Your task to perform on an android device: change timer sound Image 0: 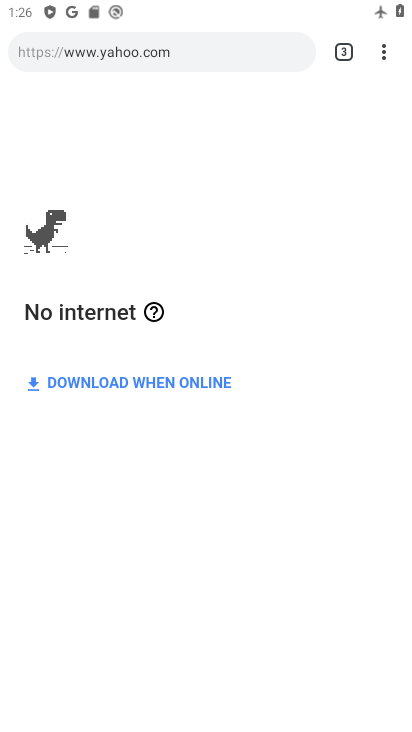
Step 0: press home button
Your task to perform on an android device: change timer sound Image 1: 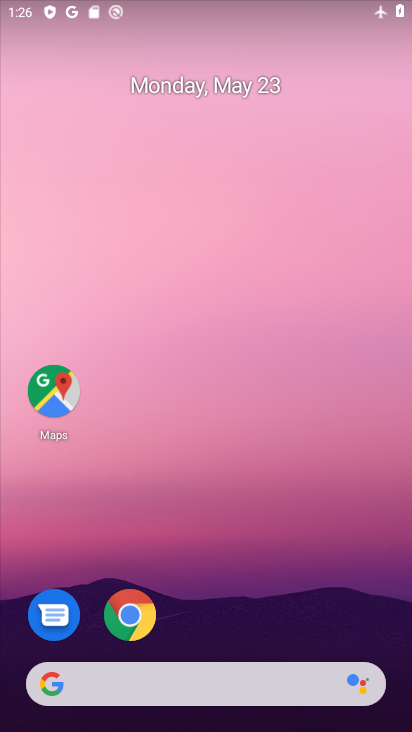
Step 1: drag from (221, 666) to (196, 126)
Your task to perform on an android device: change timer sound Image 2: 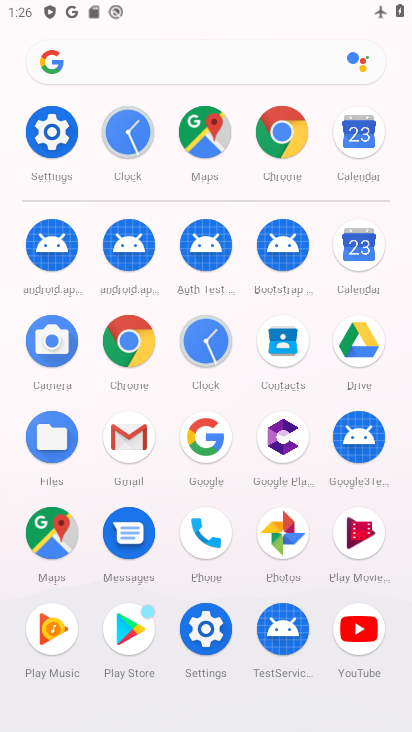
Step 2: click (214, 351)
Your task to perform on an android device: change timer sound Image 3: 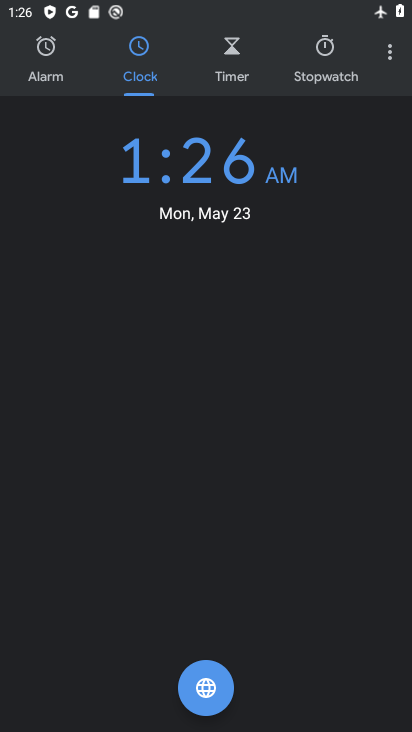
Step 3: click (391, 40)
Your task to perform on an android device: change timer sound Image 4: 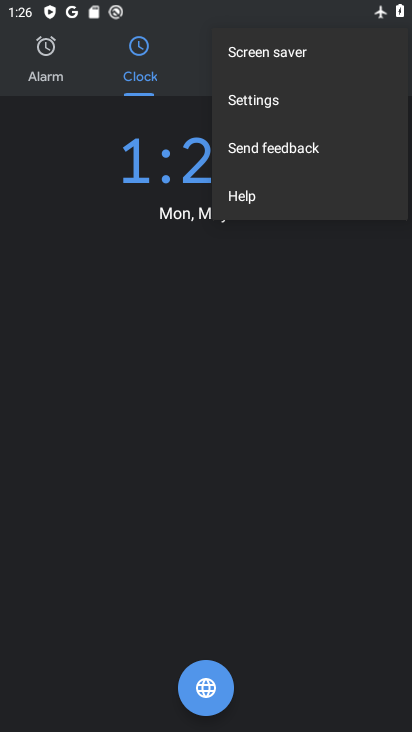
Step 4: click (283, 93)
Your task to perform on an android device: change timer sound Image 5: 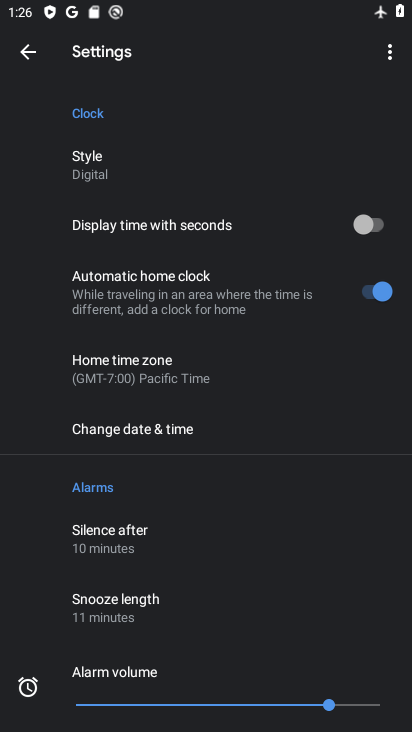
Step 5: drag from (120, 605) to (69, 309)
Your task to perform on an android device: change timer sound Image 6: 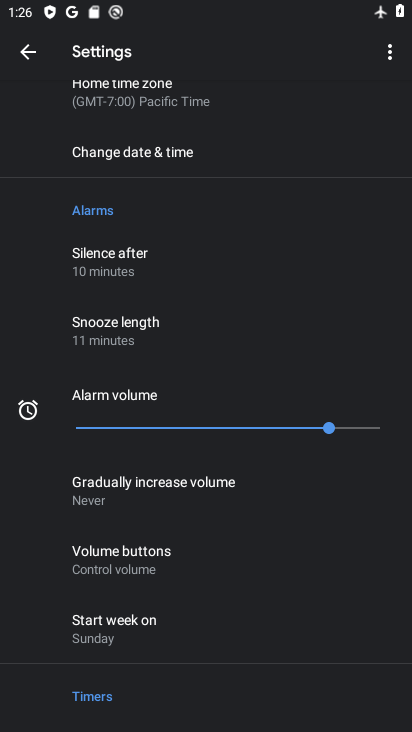
Step 6: drag from (243, 513) to (221, 284)
Your task to perform on an android device: change timer sound Image 7: 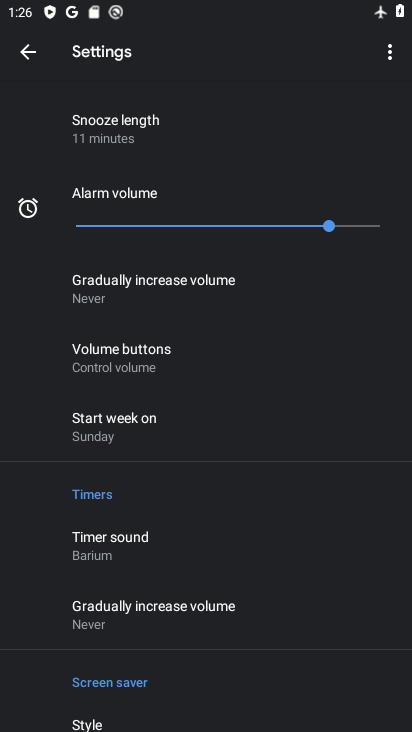
Step 7: click (136, 533)
Your task to perform on an android device: change timer sound Image 8: 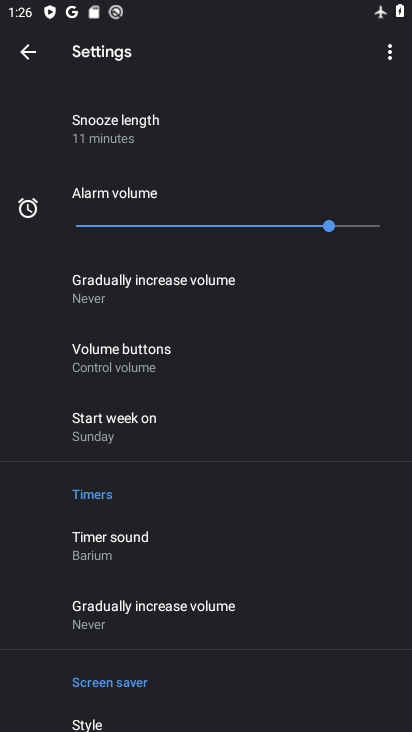
Step 8: click (136, 533)
Your task to perform on an android device: change timer sound Image 9: 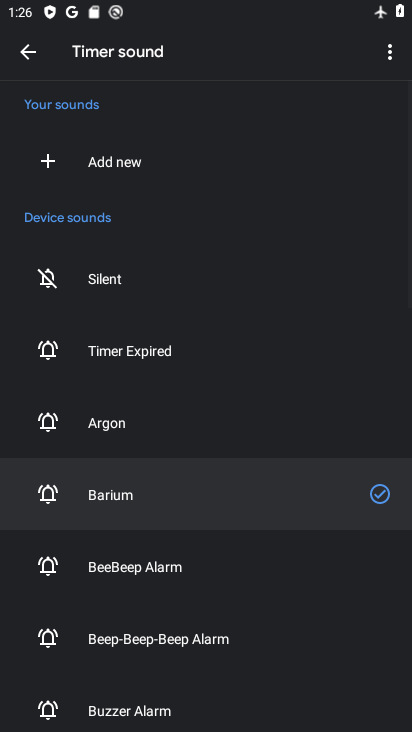
Step 9: click (133, 563)
Your task to perform on an android device: change timer sound Image 10: 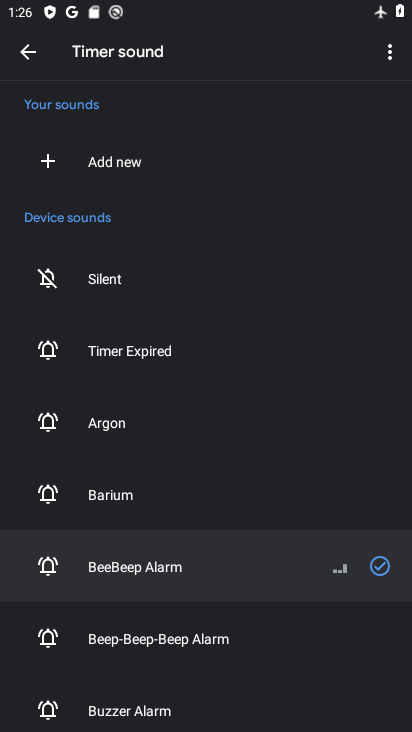
Step 10: task complete